Your task to perform on an android device: Open battery settings Image 0: 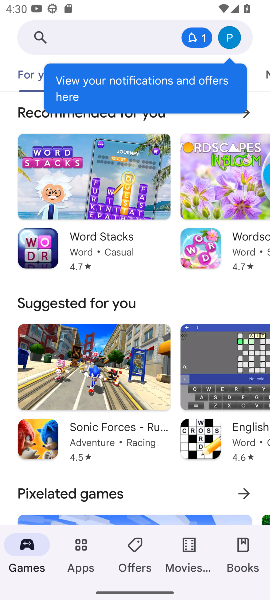
Step 0: press home button
Your task to perform on an android device: Open battery settings Image 1: 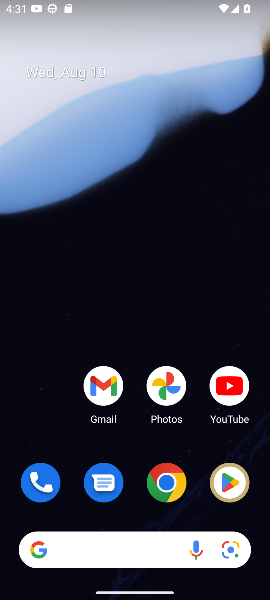
Step 1: drag from (57, 401) to (98, 40)
Your task to perform on an android device: Open battery settings Image 2: 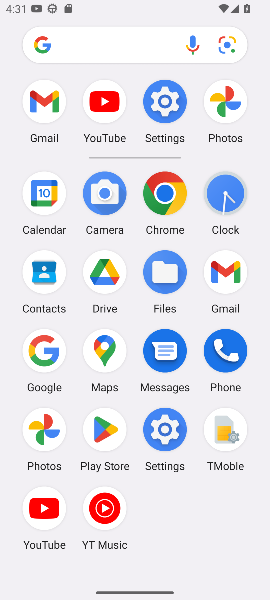
Step 2: click (165, 99)
Your task to perform on an android device: Open battery settings Image 3: 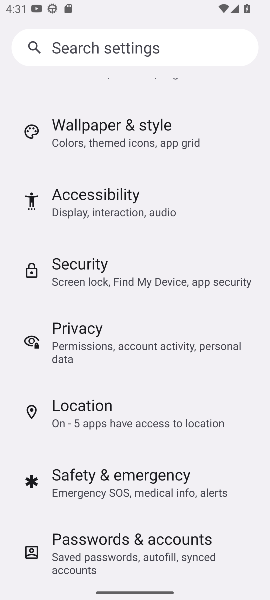
Step 3: drag from (191, 163) to (207, 472)
Your task to perform on an android device: Open battery settings Image 4: 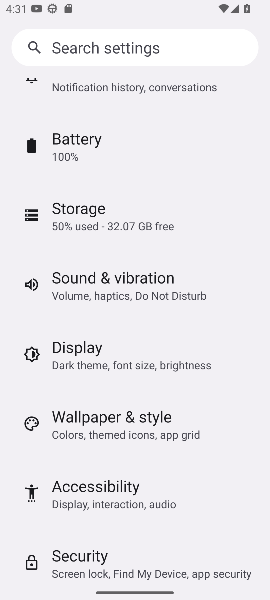
Step 4: click (127, 144)
Your task to perform on an android device: Open battery settings Image 5: 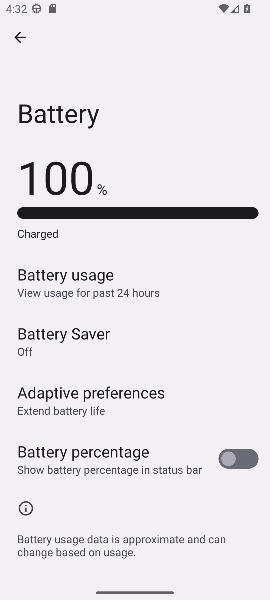
Step 5: task complete